Your task to perform on an android device: turn vacation reply on in the gmail app Image 0: 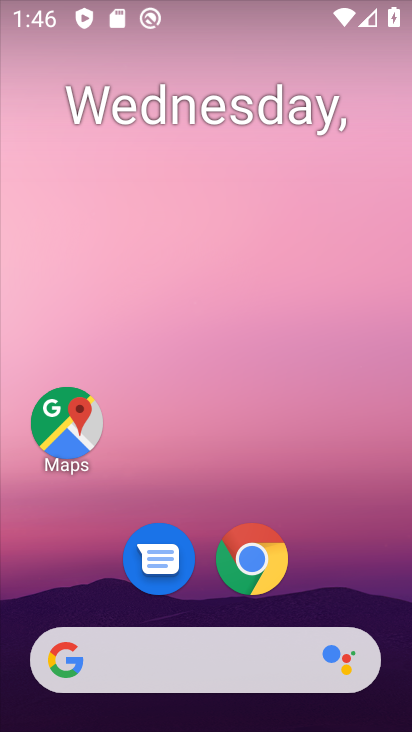
Step 0: drag from (335, 569) to (294, 237)
Your task to perform on an android device: turn vacation reply on in the gmail app Image 1: 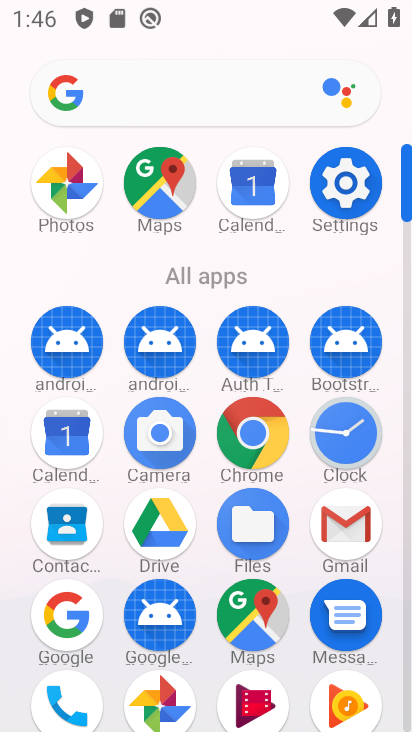
Step 1: drag from (218, 494) to (191, 258)
Your task to perform on an android device: turn vacation reply on in the gmail app Image 2: 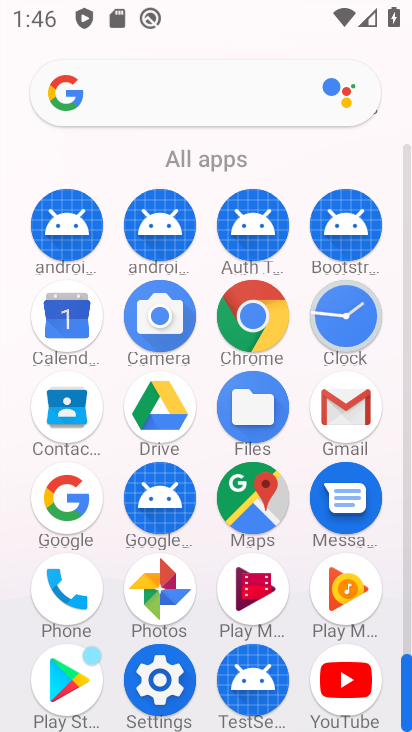
Step 2: click (348, 408)
Your task to perform on an android device: turn vacation reply on in the gmail app Image 3: 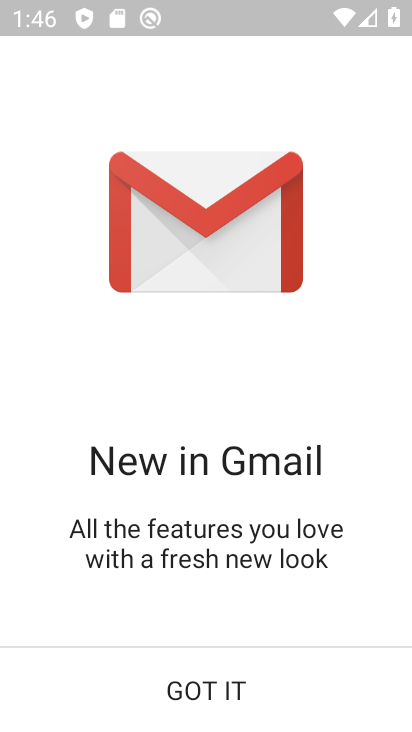
Step 3: click (200, 688)
Your task to perform on an android device: turn vacation reply on in the gmail app Image 4: 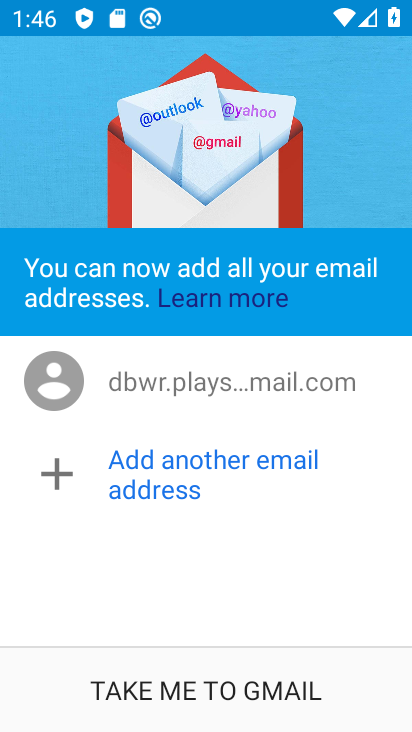
Step 4: click (200, 688)
Your task to perform on an android device: turn vacation reply on in the gmail app Image 5: 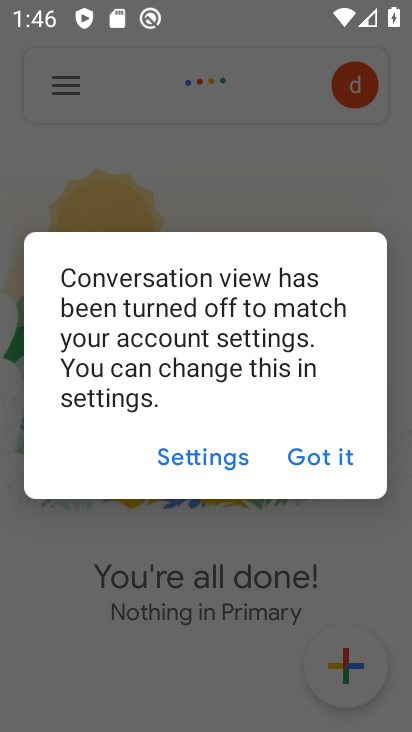
Step 5: click (309, 454)
Your task to perform on an android device: turn vacation reply on in the gmail app Image 6: 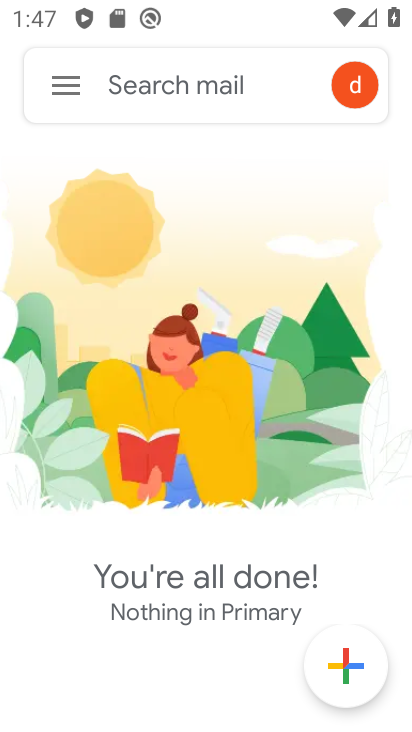
Step 6: click (69, 86)
Your task to perform on an android device: turn vacation reply on in the gmail app Image 7: 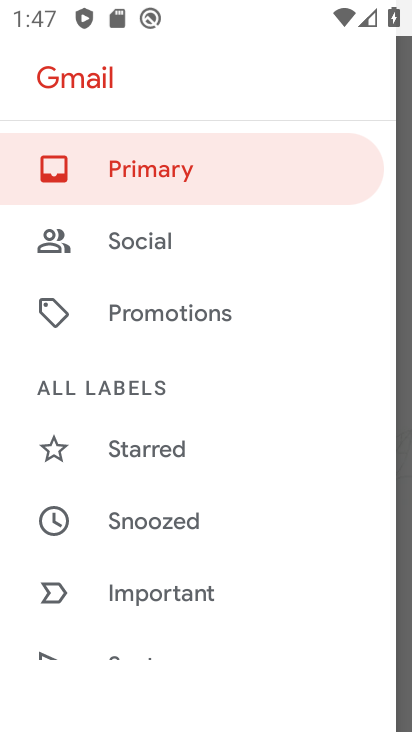
Step 7: drag from (185, 480) to (213, 271)
Your task to perform on an android device: turn vacation reply on in the gmail app Image 8: 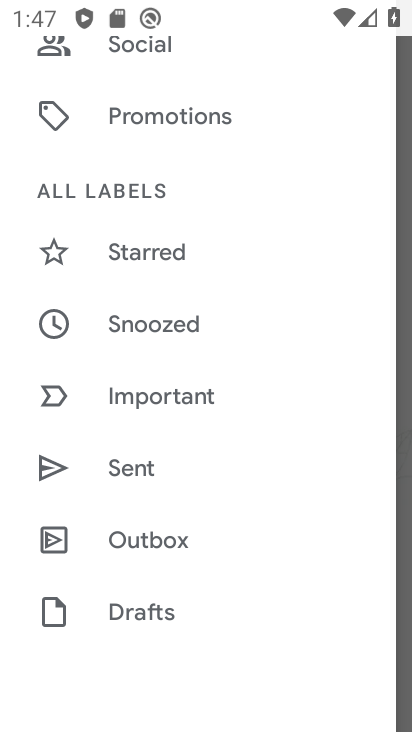
Step 8: drag from (170, 363) to (192, 209)
Your task to perform on an android device: turn vacation reply on in the gmail app Image 9: 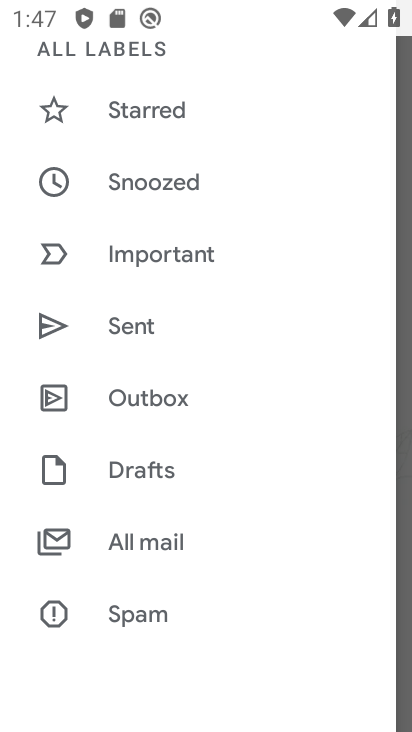
Step 9: drag from (148, 448) to (167, 301)
Your task to perform on an android device: turn vacation reply on in the gmail app Image 10: 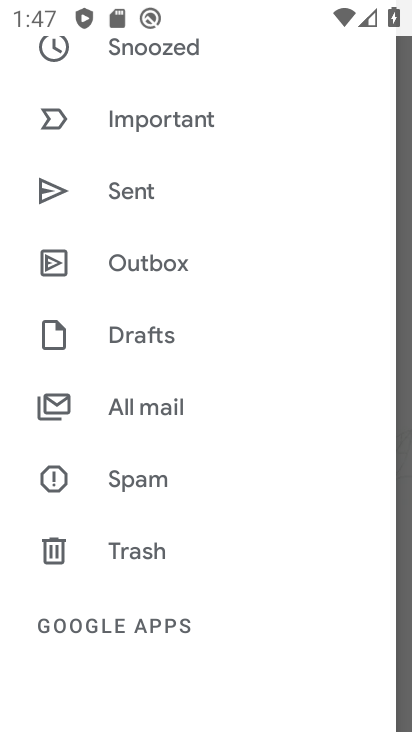
Step 10: drag from (129, 444) to (142, 291)
Your task to perform on an android device: turn vacation reply on in the gmail app Image 11: 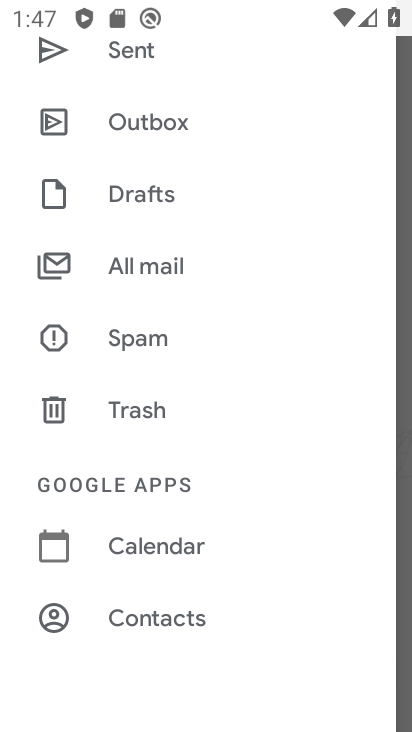
Step 11: drag from (128, 442) to (150, 281)
Your task to perform on an android device: turn vacation reply on in the gmail app Image 12: 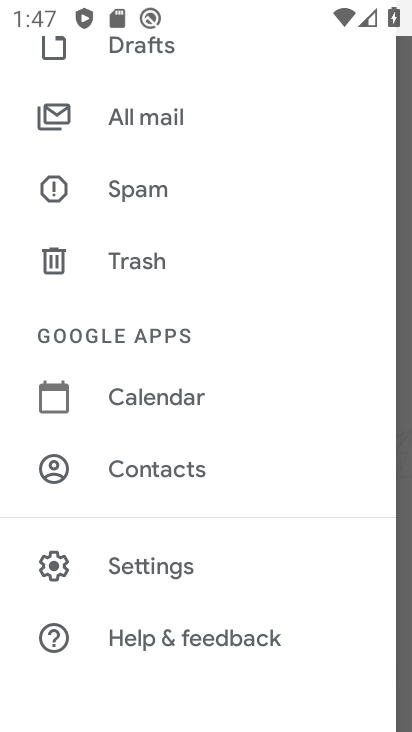
Step 12: click (182, 569)
Your task to perform on an android device: turn vacation reply on in the gmail app Image 13: 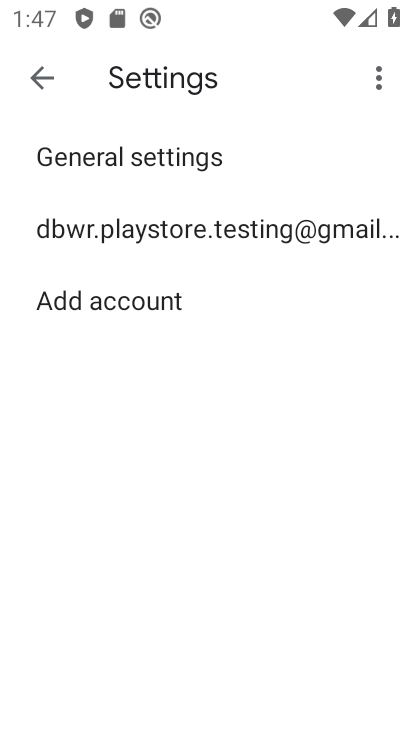
Step 13: click (237, 227)
Your task to perform on an android device: turn vacation reply on in the gmail app Image 14: 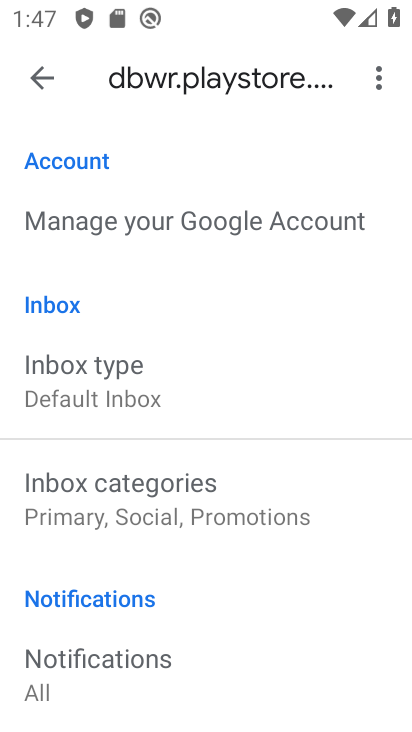
Step 14: drag from (202, 601) to (234, 370)
Your task to perform on an android device: turn vacation reply on in the gmail app Image 15: 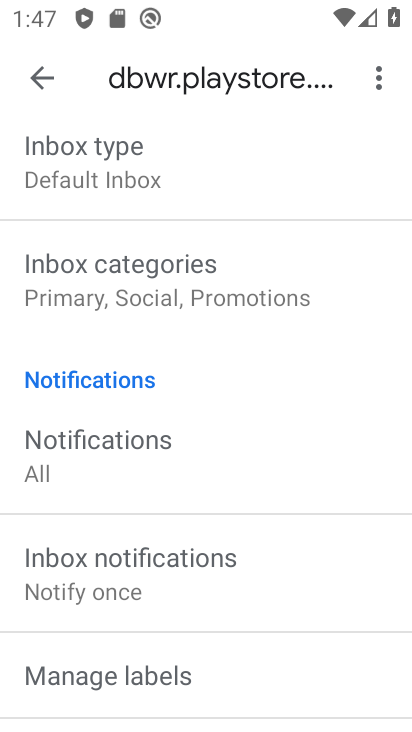
Step 15: drag from (177, 481) to (185, 337)
Your task to perform on an android device: turn vacation reply on in the gmail app Image 16: 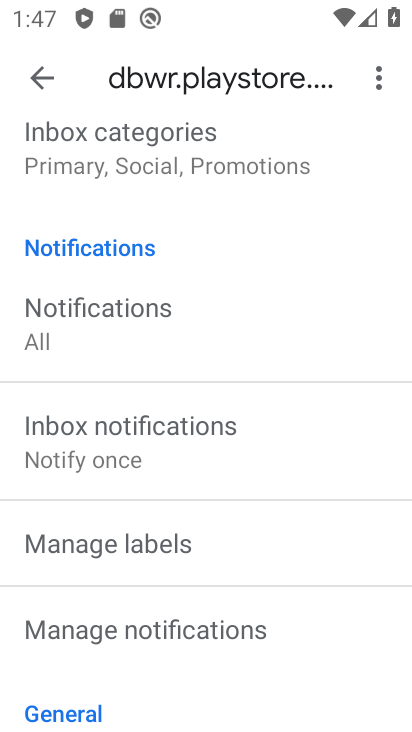
Step 16: drag from (223, 564) to (260, 430)
Your task to perform on an android device: turn vacation reply on in the gmail app Image 17: 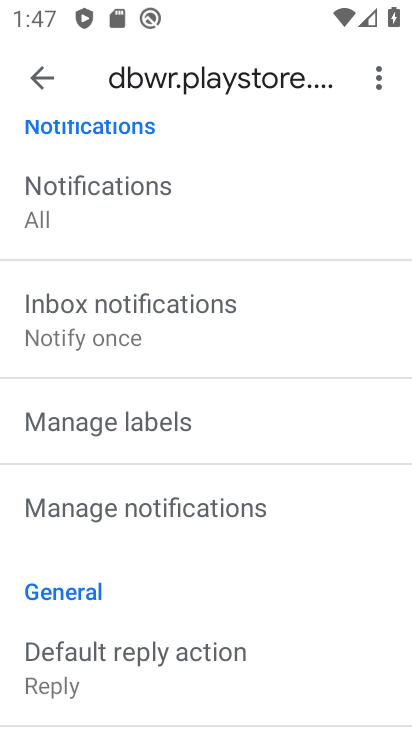
Step 17: drag from (157, 553) to (203, 418)
Your task to perform on an android device: turn vacation reply on in the gmail app Image 18: 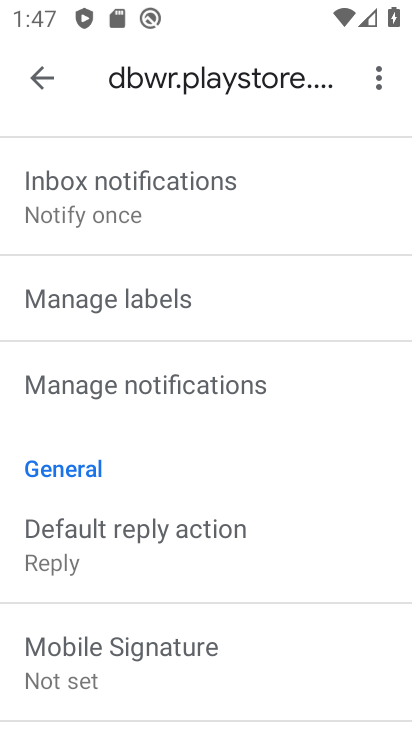
Step 18: drag from (163, 465) to (179, 344)
Your task to perform on an android device: turn vacation reply on in the gmail app Image 19: 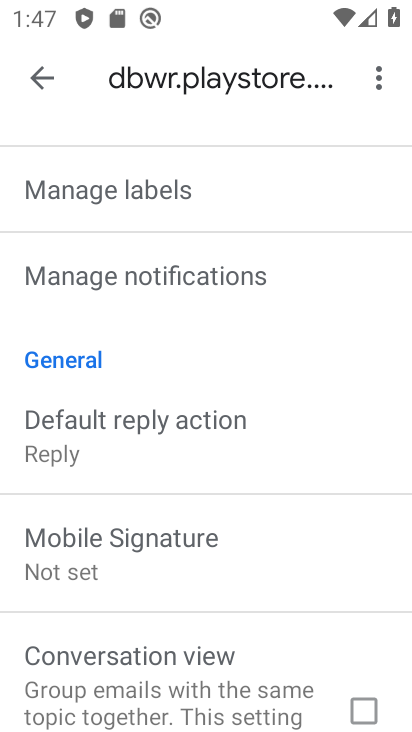
Step 19: drag from (146, 577) to (180, 415)
Your task to perform on an android device: turn vacation reply on in the gmail app Image 20: 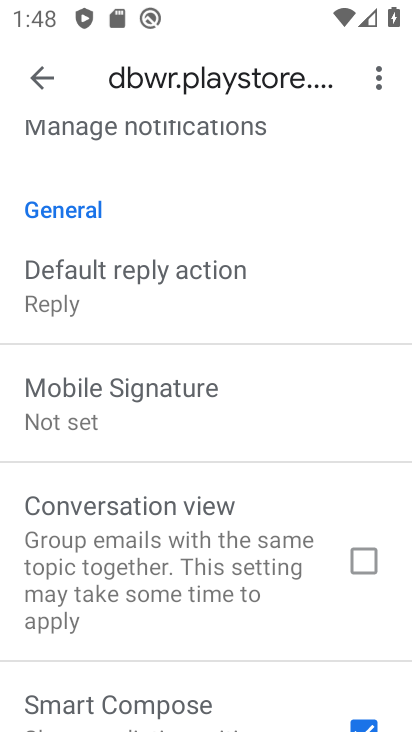
Step 20: drag from (149, 638) to (180, 428)
Your task to perform on an android device: turn vacation reply on in the gmail app Image 21: 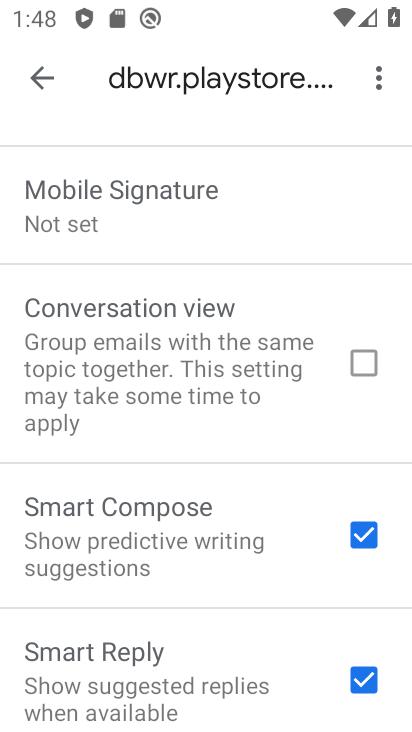
Step 21: drag from (187, 607) to (216, 386)
Your task to perform on an android device: turn vacation reply on in the gmail app Image 22: 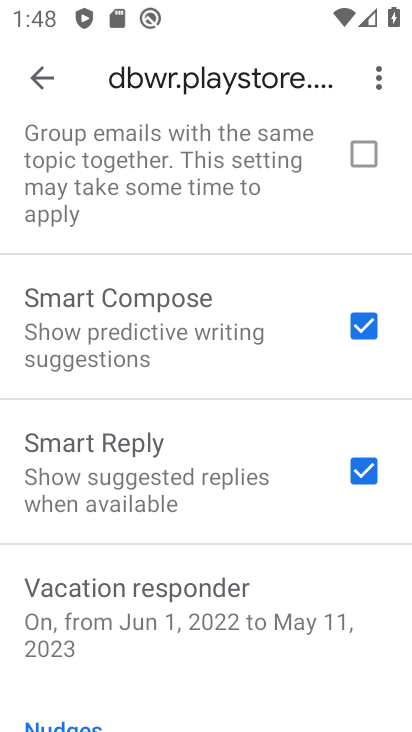
Step 22: click (232, 624)
Your task to perform on an android device: turn vacation reply on in the gmail app Image 23: 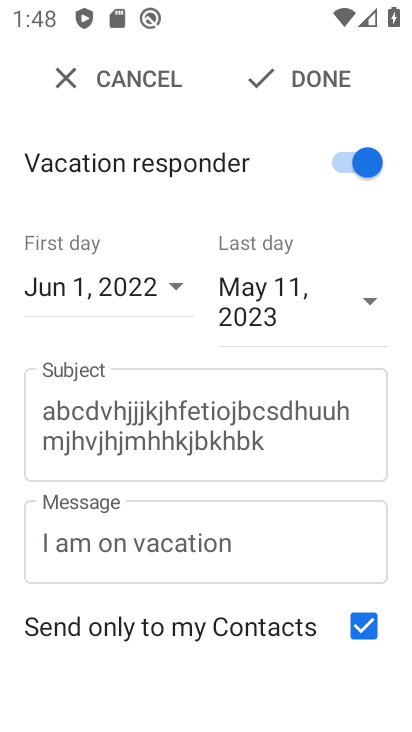
Step 23: task complete